Your task to perform on an android device: What's the weather going to be this weekend? Image 0: 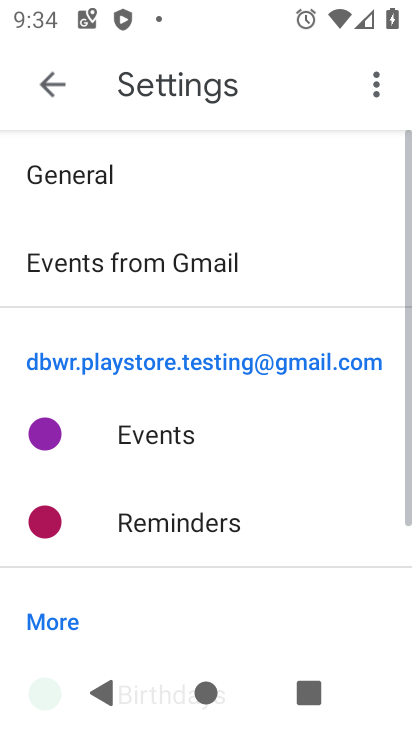
Step 0: press home button
Your task to perform on an android device: What's the weather going to be this weekend? Image 1: 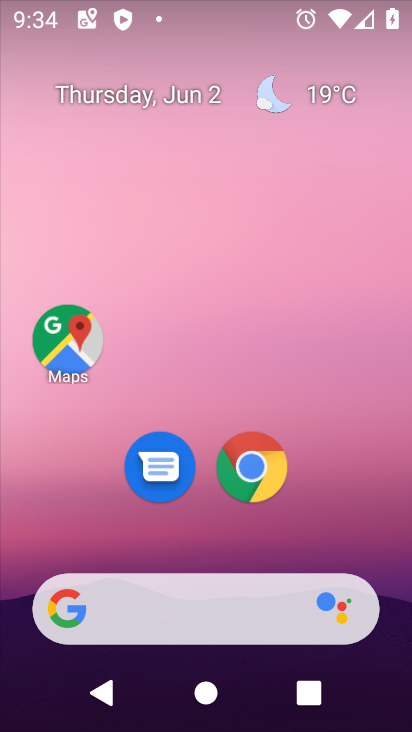
Step 1: drag from (220, 543) to (355, 197)
Your task to perform on an android device: What's the weather going to be this weekend? Image 2: 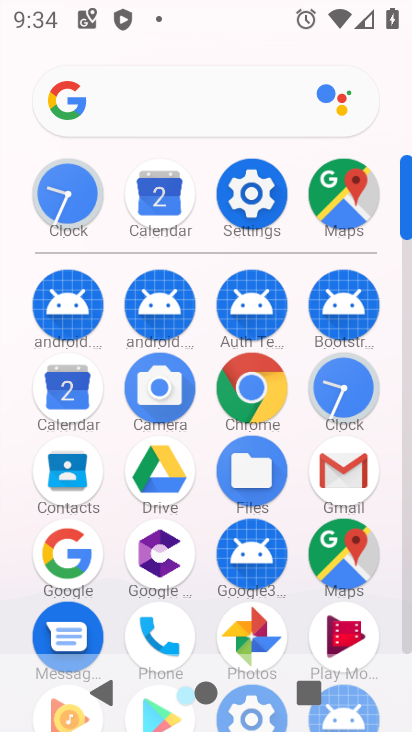
Step 2: click (62, 547)
Your task to perform on an android device: What's the weather going to be this weekend? Image 3: 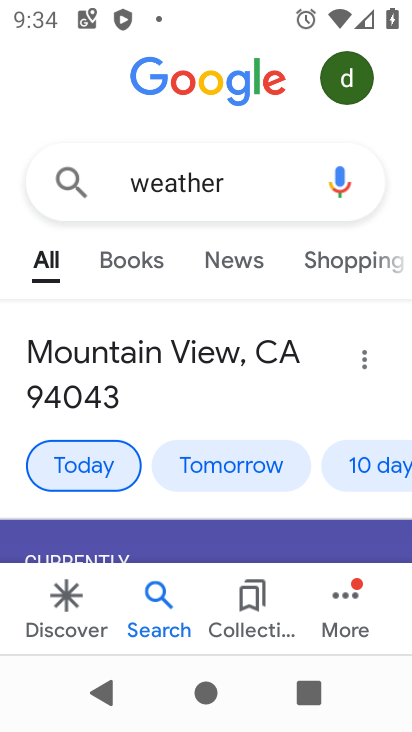
Step 3: click (383, 471)
Your task to perform on an android device: What's the weather going to be this weekend? Image 4: 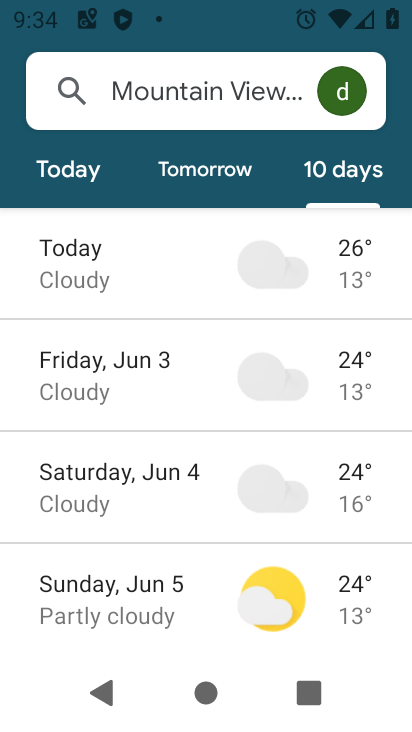
Step 4: task complete